Your task to perform on an android device: change text size in settings app Image 0: 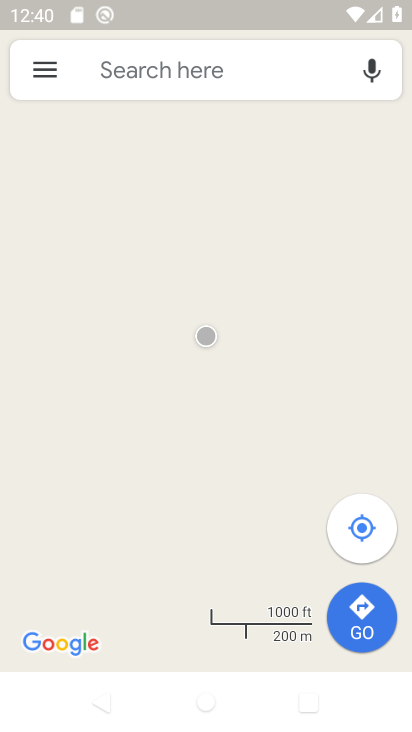
Step 0: press home button
Your task to perform on an android device: change text size in settings app Image 1: 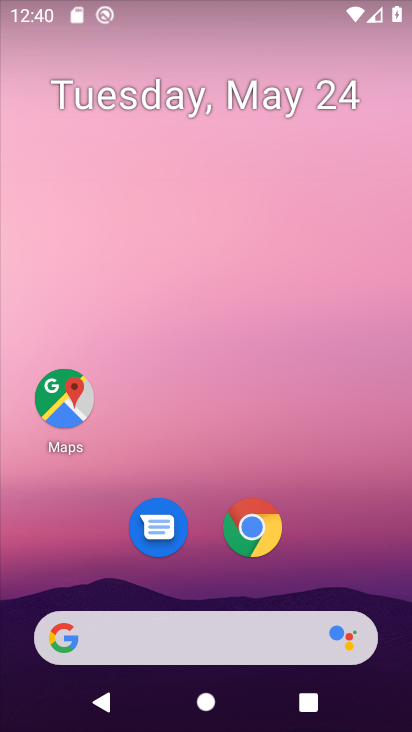
Step 1: drag from (328, 534) to (294, 60)
Your task to perform on an android device: change text size in settings app Image 2: 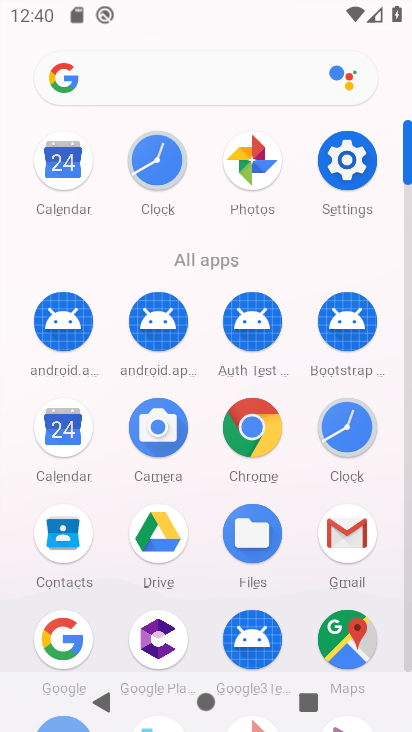
Step 2: click (343, 164)
Your task to perform on an android device: change text size in settings app Image 3: 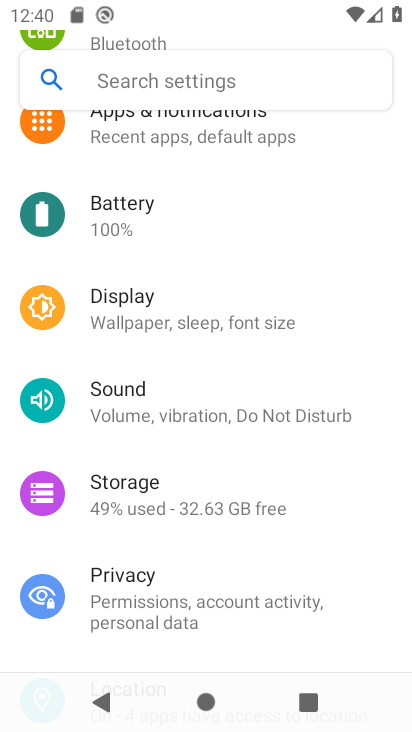
Step 3: click (124, 314)
Your task to perform on an android device: change text size in settings app Image 4: 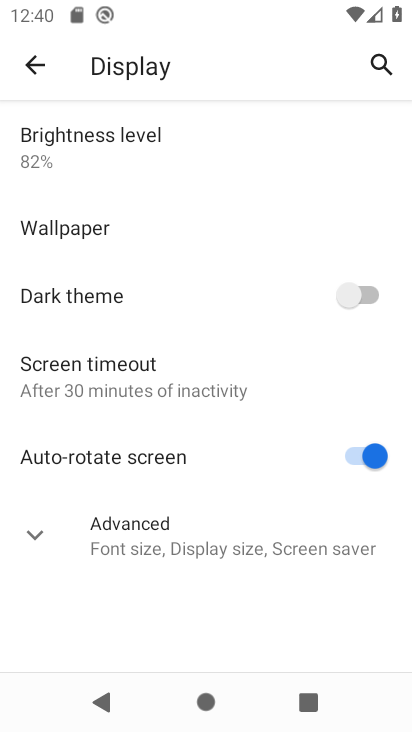
Step 4: click (64, 520)
Your task to perform on an android device: change text size in settings app Image 5: 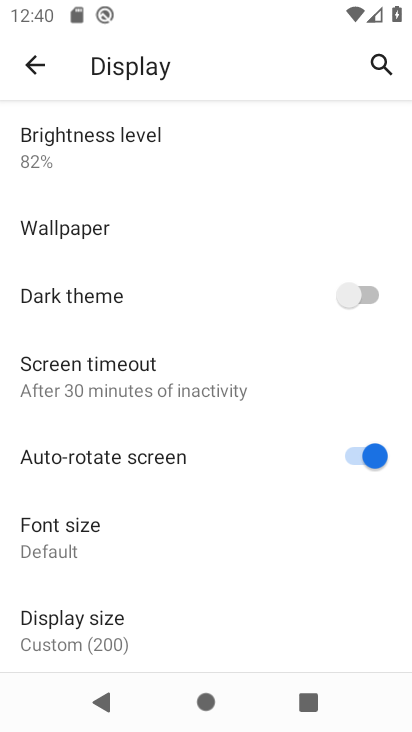
Step 5: click (50, 514)
Your task to perform on an android device: change text size in settings app Image 6: 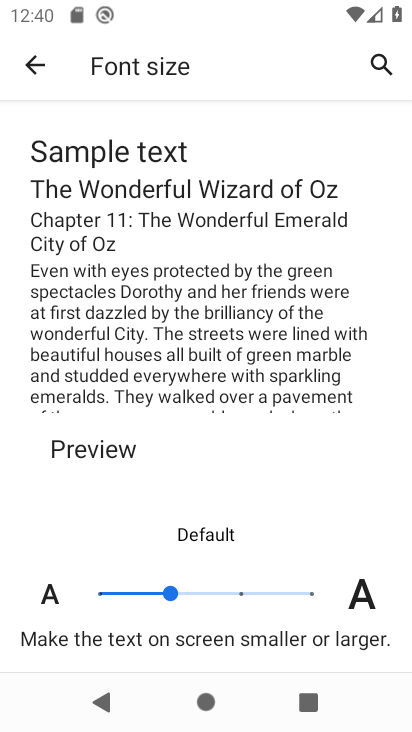
Step 6: click (229, 596)
Your task to perform on an android device: change text size in settings app Image 7: 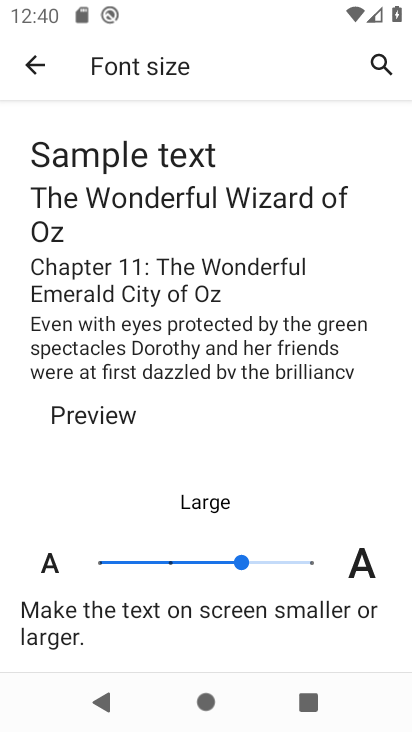
Step 7: task complete